Your task to perform on an android device: check storage Image 0: 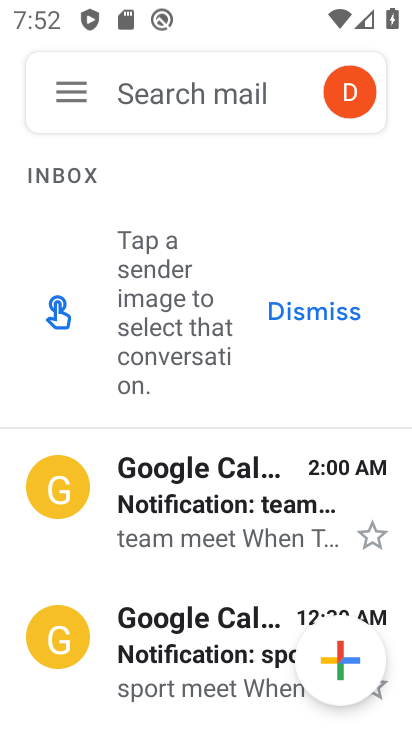
Step 0: press home button
Your task to perform on an android device: check storage Image 1: 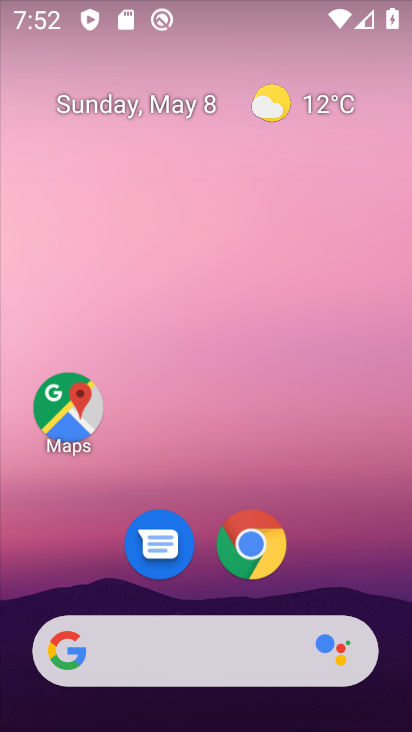
Step 1: drag from (328, 527) to (177, 16)
Your task to perform on an android device: check storage Image 2: 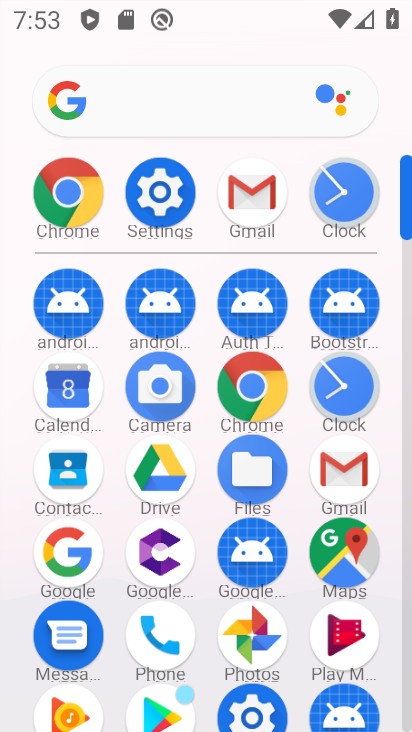
Step 2: click (163, 202)
Your task to perform on an android device: check storage Image 3: 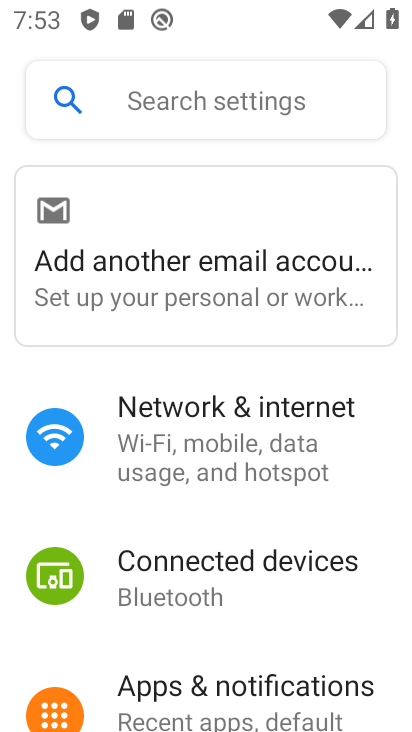
Step 3: drag from (225, 622) to (214, 298)
Your task to perform on an android device: check storage Image 4: 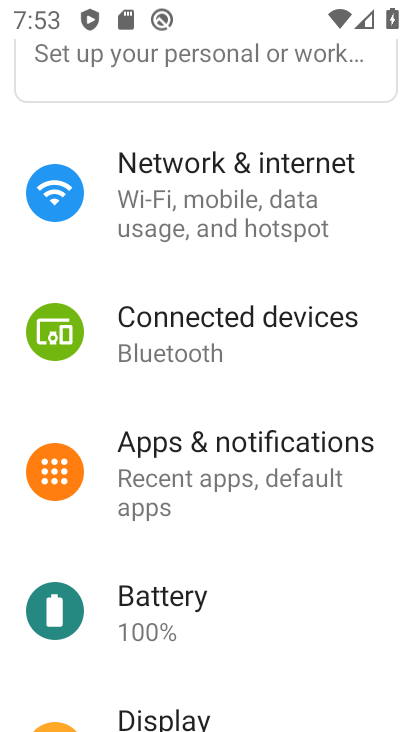
Step 4: drag from (225, 559) to (187, 217)
Your task to perform on an android device: check storage Image 5: 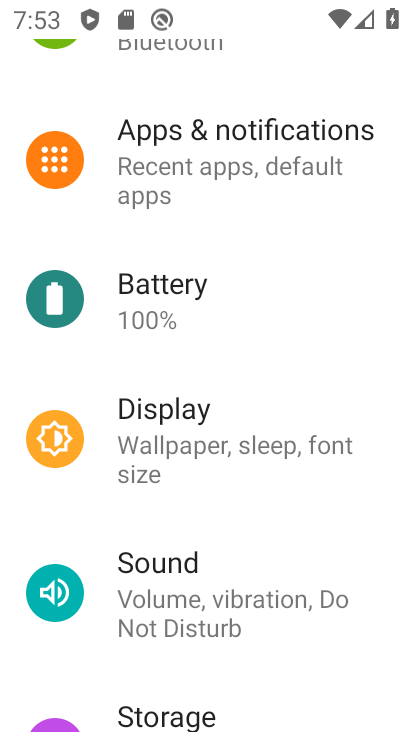
Step 5: drag from (221, 644) to (214, 368)
Your task to perform on an android device: check storage Image 6: 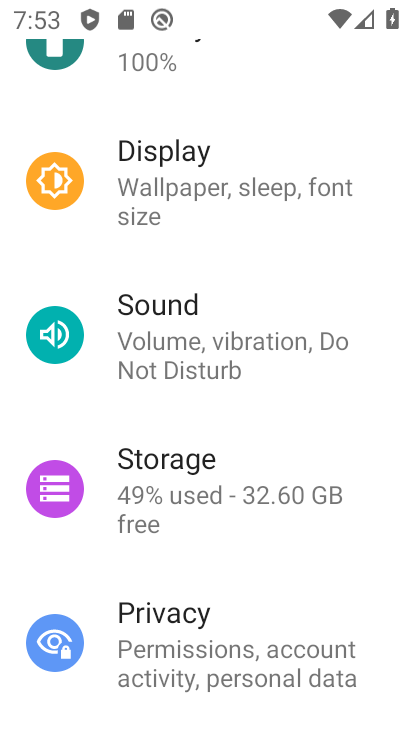
Step 6: click (169, 458)
Your task to perform on an android device: check storage Image 7: 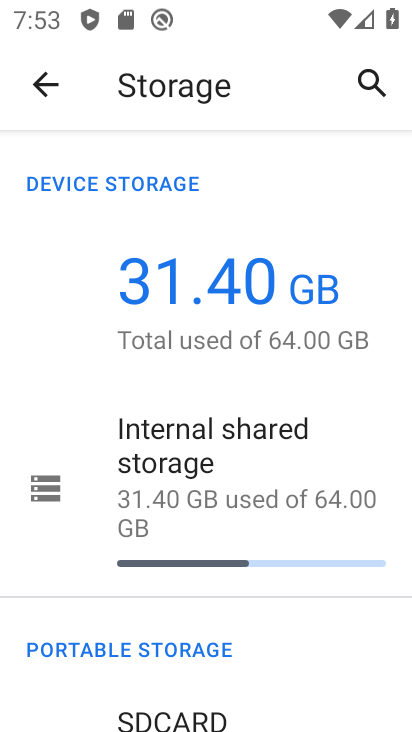
Step 7: task complete